Your task to perform on an android device: toggle airplane mode Image 0: 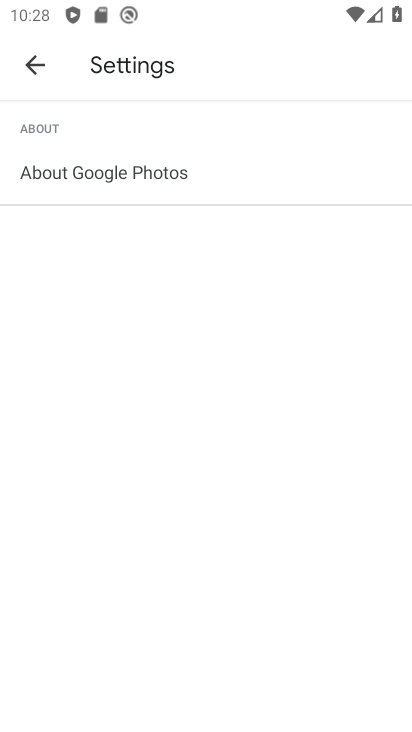
Step 0: press home button
Your task to perform on an android device: toggle airplane mode Image 1: 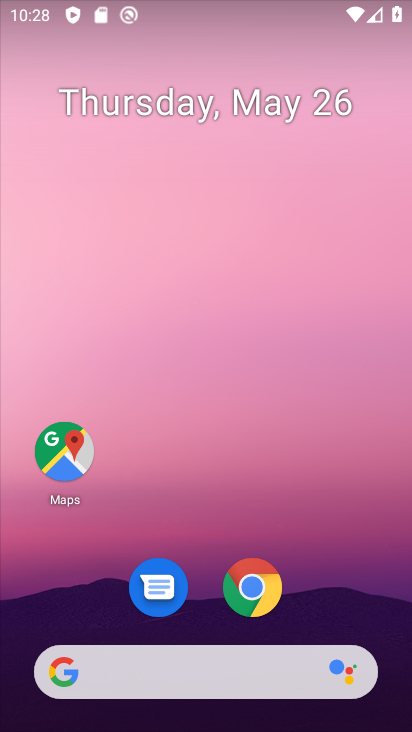
Step 1: drag from (309, 703) to (284, 95)
Your task to perform on an android device: toggle airplane mode Image 2: 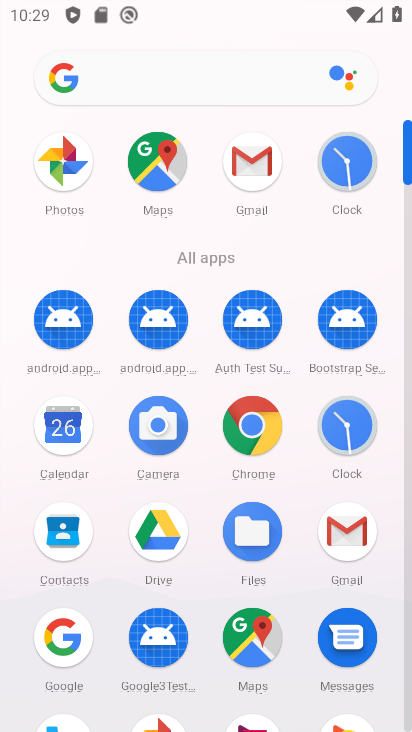
Step 2: drag from (103, 493) to (89, 251)
Your task to perform on an android device: toggle airplane mode Image 3: 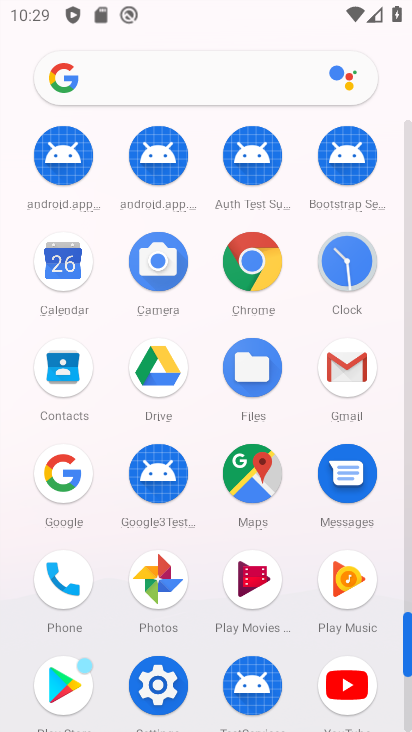
Step 3: click (181, 674)
Your task to perform on an android device: toggle airplane mode Image 4: 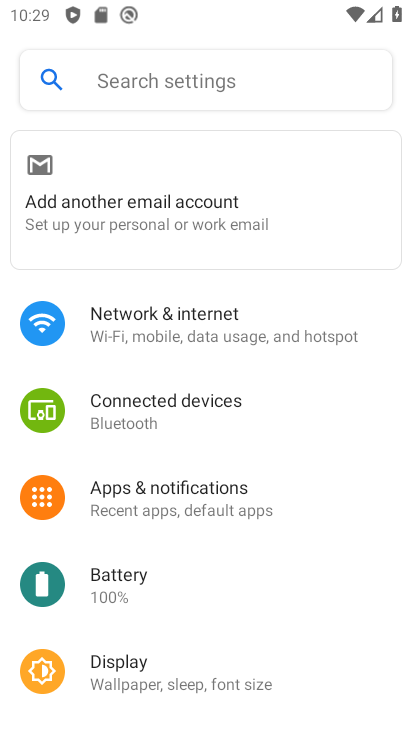
Step 4: click (204, 334)
Your task to perform on an android device: toggle airplane mode Image 5: 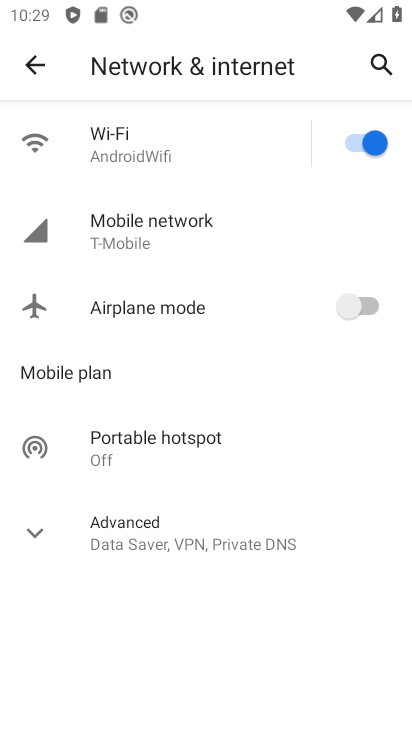
Step 5: click (336, 308)
Your task to perform on an android device: toggle airplane mode Image 6: 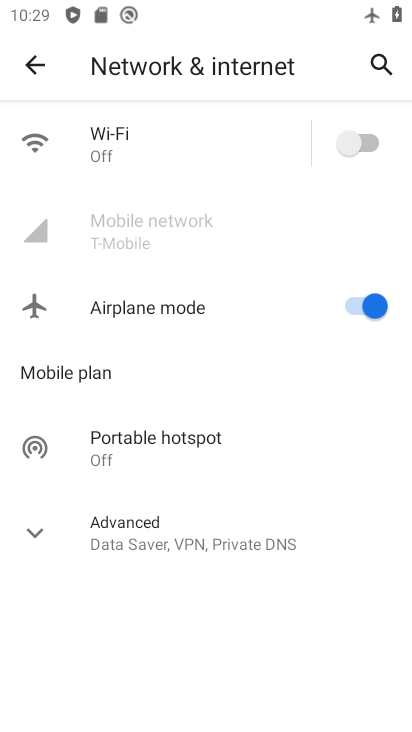
Step 6: click (336, 307)
Your task to perform on an android device: toggle airplane mode Image 7: 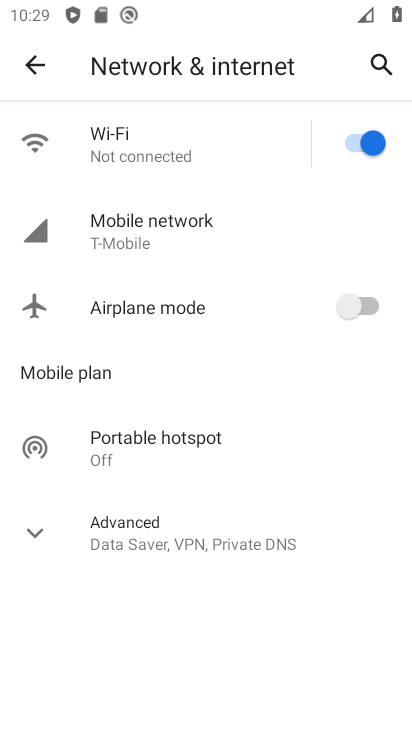
Step 7: task complete